Your task to perform on an android device: turn off smart reply in the gmail app Image 0: 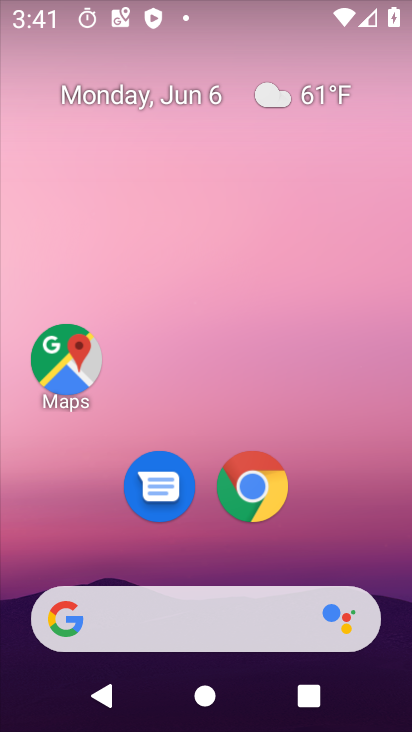
Step 0: drag from (321, 516) to (272, 136)
Your task to perform on an android device: turn off smart reply in the gmail app Image 1: 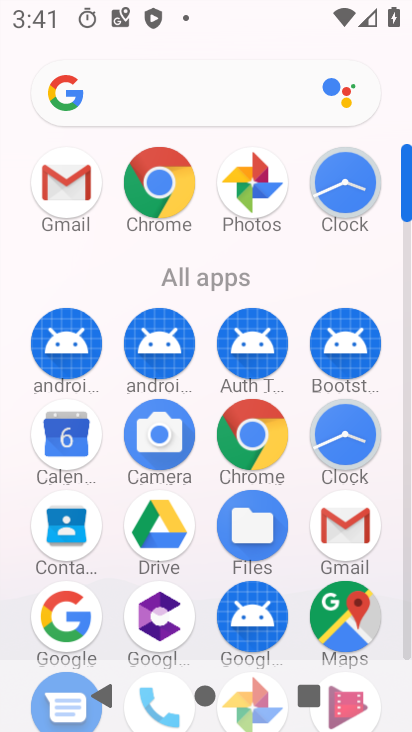
Step 1: click (77, 163)
Your task to perform on an android device: turn off smart reply in the gmail app Image 2: 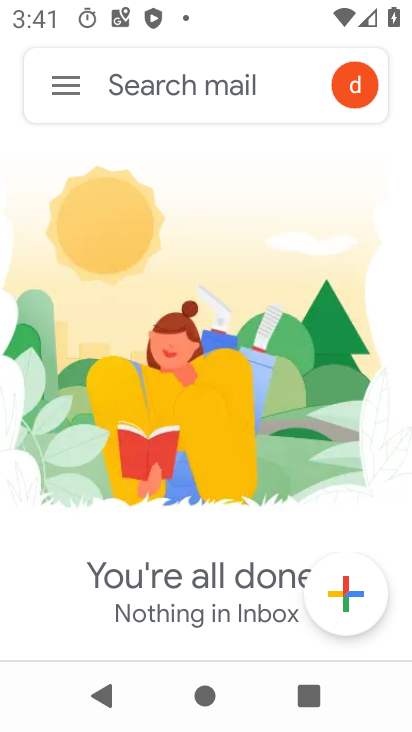
Step 2: click (72, 92)
Your task to perform on an android device: turn off smart reply in the gmail app Image 3: 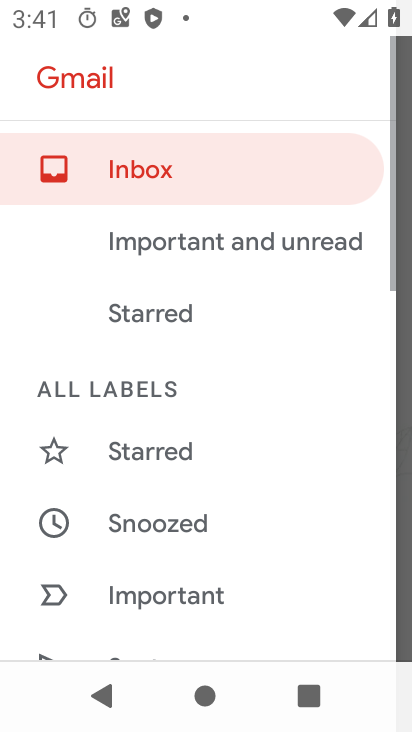
Step 3: drag from (196, 587) to (216, 163)
Your task to perform on an android device: turn off smart reply in the gmail app Image 4: 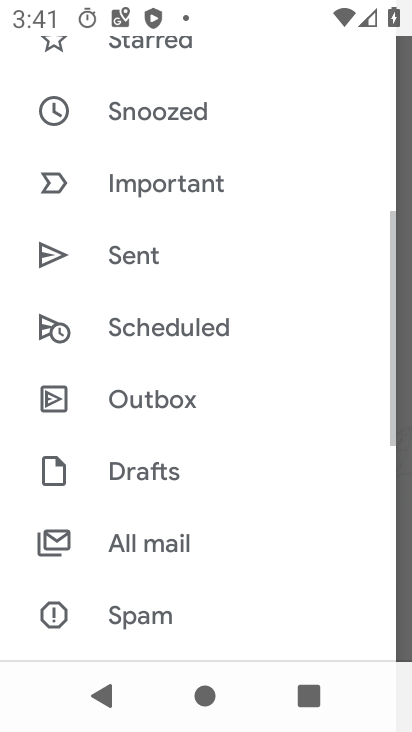
Step 4: drag from (160, 606) to (236, 191)
Your task to perform on an android device: turn off smart reply in the gmail app Image 5: 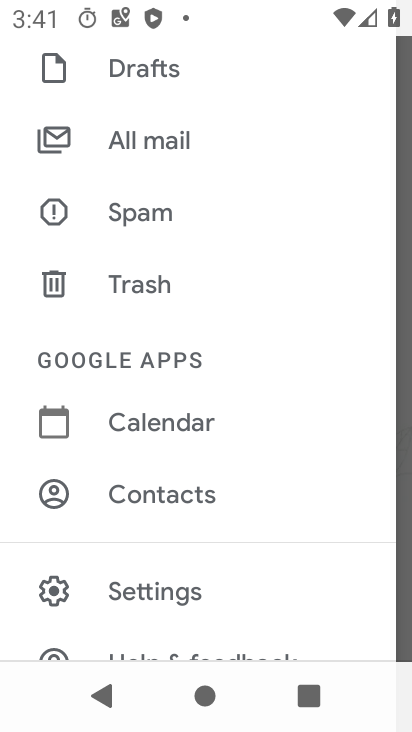
Step 5: drag from (208, 510) to (224, 295)
Your task to perform on an android device: turn off smart reply in the gmail app Image 6: 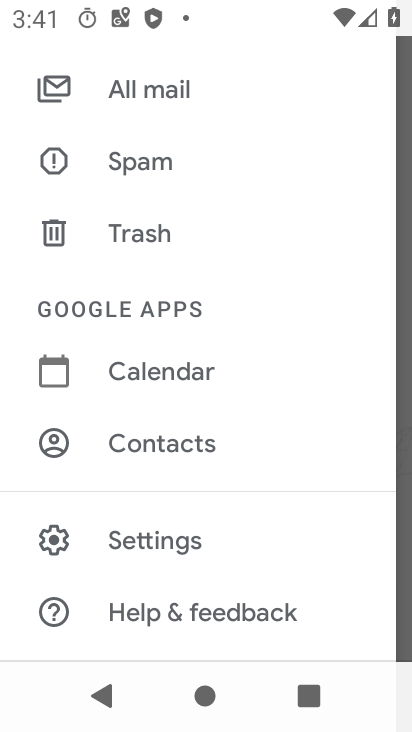
Step 6: click (134, 552)
Your task to perform on an android device: turn off smart reply in the gmail app Image 7: 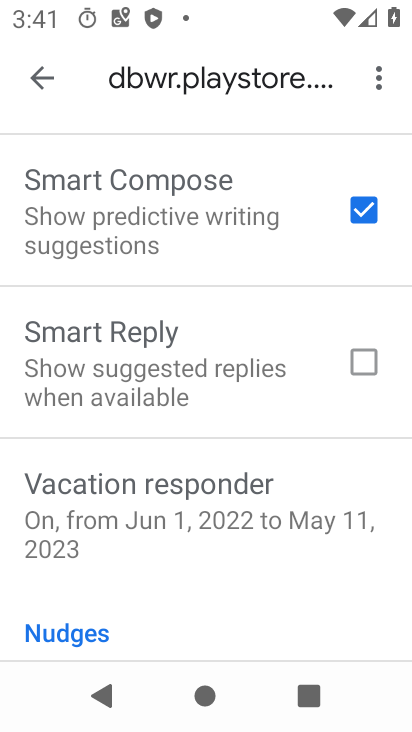
Step 7: task complete